Your task to perform on an android device: Open Wikipedia Image 0: 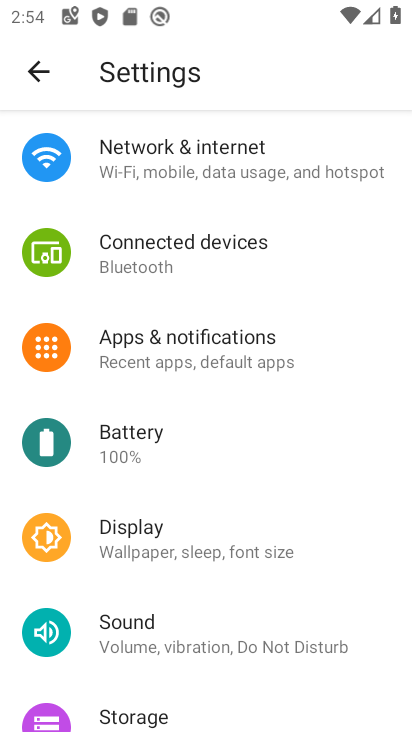
Step 0: press home button
Your task to perform on an android device: Open Wikipedia Image 1: 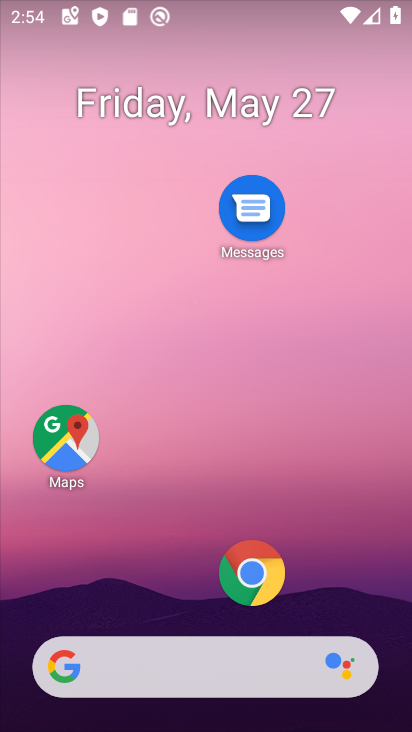
Step 1: drag from (161, 571) to (154, 158)
Your task to perform on an android device: Open Wikipedia Image 2: 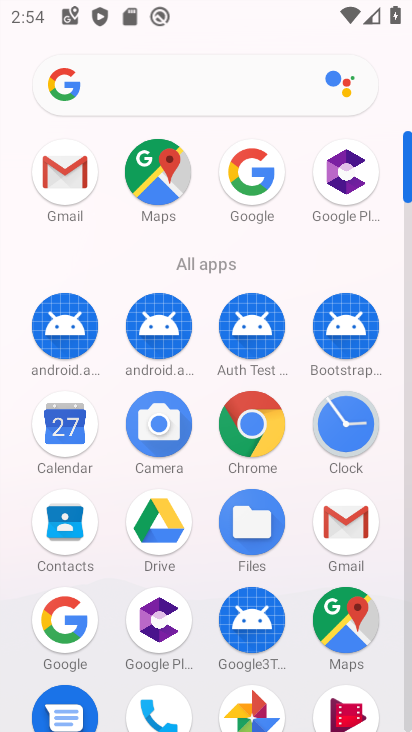
Step 2: click (241, 435)
Your task to perform on an android device: Open Wikipedia Image 3: 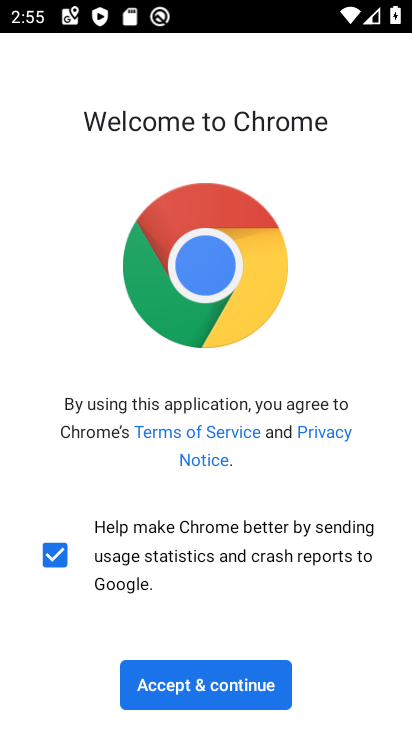
Step 3: click (243, 695)
Your task to perform on an android device: Open Wikipedia Image 4: 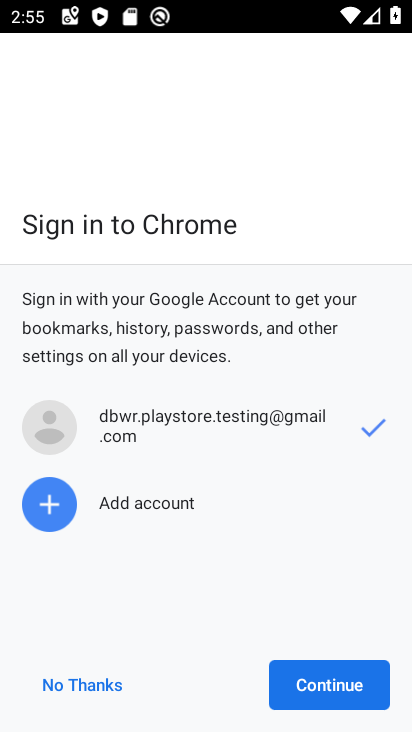
Step 4: click (318, 687)
Your task to perform on an android device: Open Wikipedia Image 5: 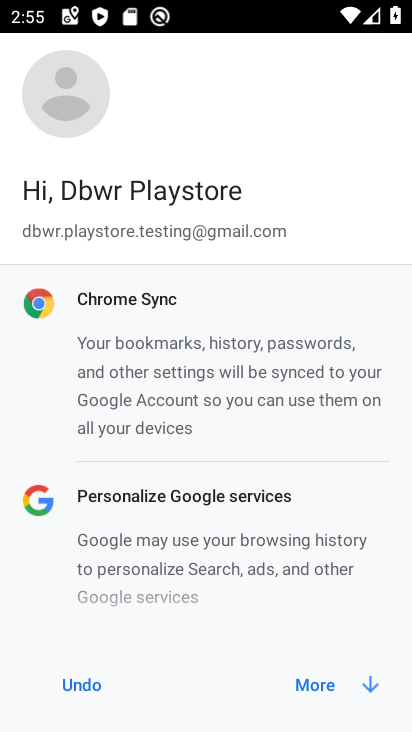
Step 5: click (317, 684)
Your task to perform on an android device: Open Wikipedia Image 6: 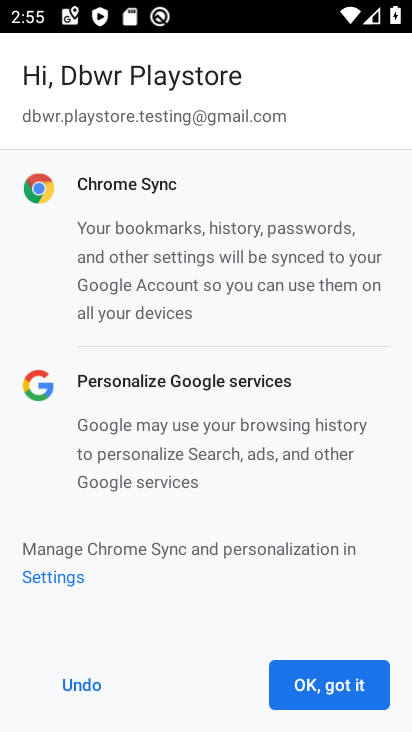
Step 6: click (317, 683)
Your task to perform on an android device: Open Wikipedia Image 7: 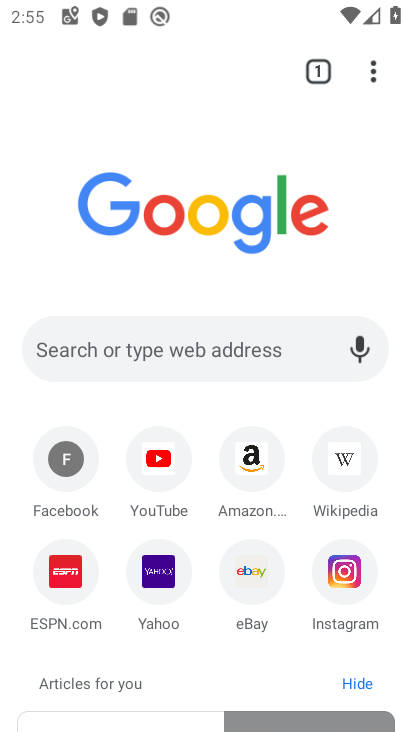
Step 7: click (352, 490)
Your task to perform on an android device: Open Wikipedia Image 8: 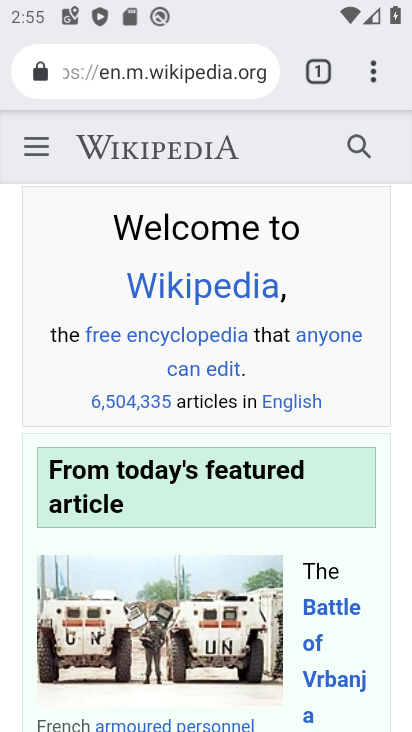
Step 8: task complete